Your task to perform on an android device: check the backup settings in the google photos Image 0: 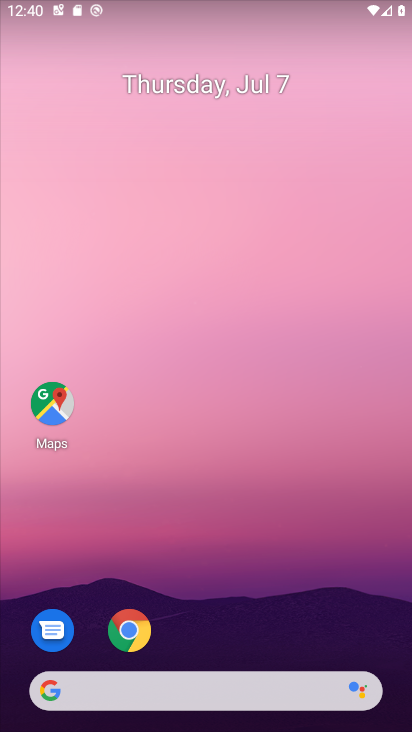
Step 0: drag from (221, 648) to (215, 322)
Your task to perform on an android device: check the backup settings in the google photos Image 1: 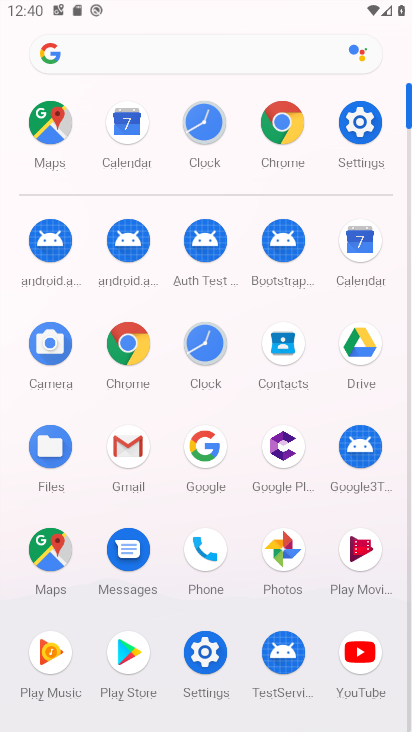
Step 1: click (291, 546)
Your task to perform on an android device: check the backup settings in the google photos Image 2: 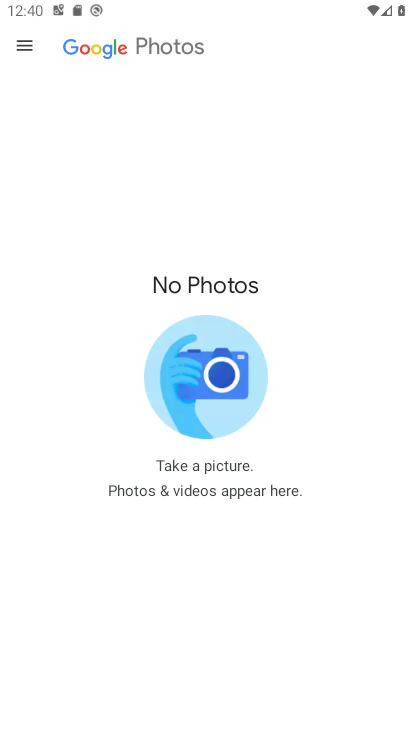
Step 2: click (22, 41)
Your task to perform on an android device: check the backup settings in the google photos Image 3: 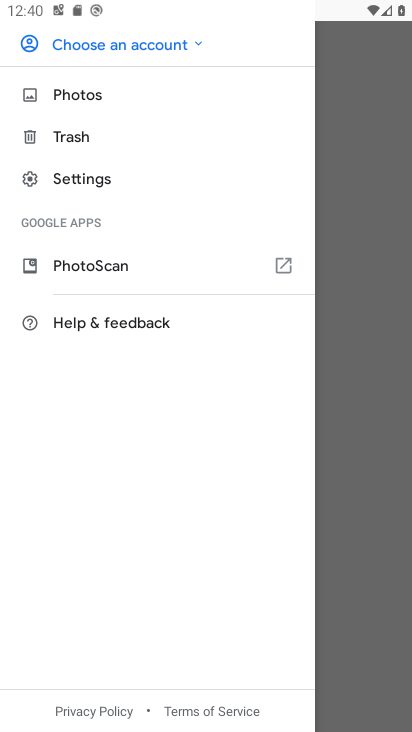
Step 3: click (336, 325)
Your task to perform on an android device: check the backup settings in the google photos Image 4: 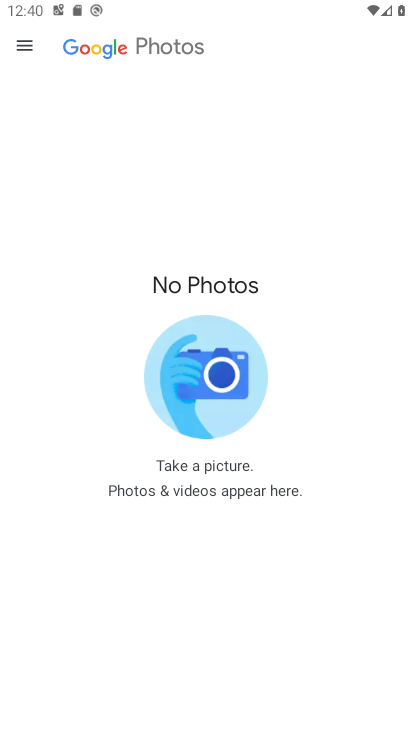
Step 4: click (24, 38)
Your task to perform on an android device: check the backup settings in the google photos Image 5: 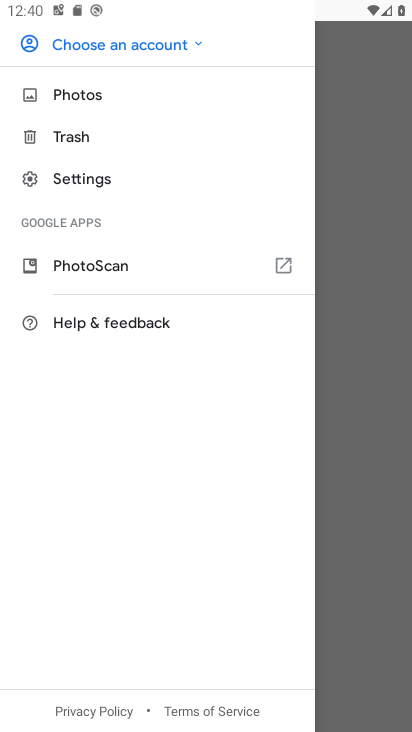
Step 5: click (89, 183)
Your task to perform on an android device: check the backup settings in the google photos Image 6: 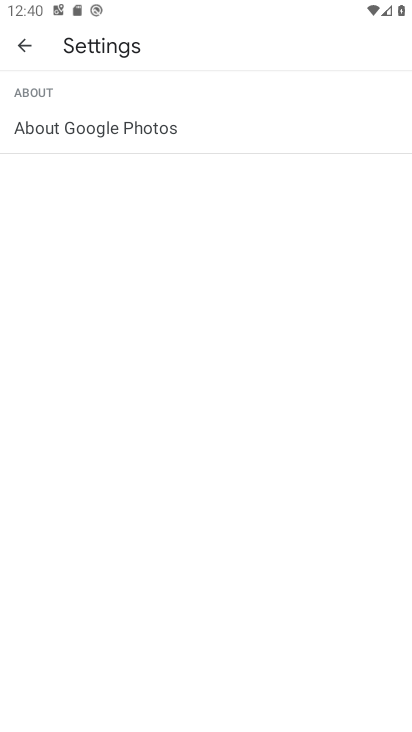
Step 6: task complete